Your task to perform on an android device: Is it going to rain today? Image 0: 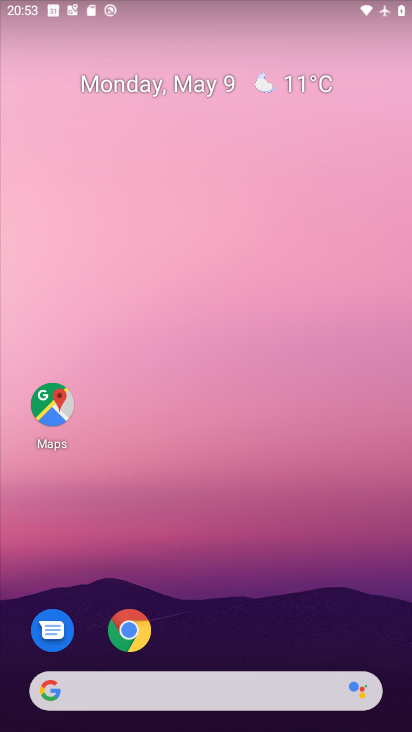
Step 0: drag from (242, 562) to (220, 47)
Your task to perform on an android device: Is it going to rain today? Image 1: 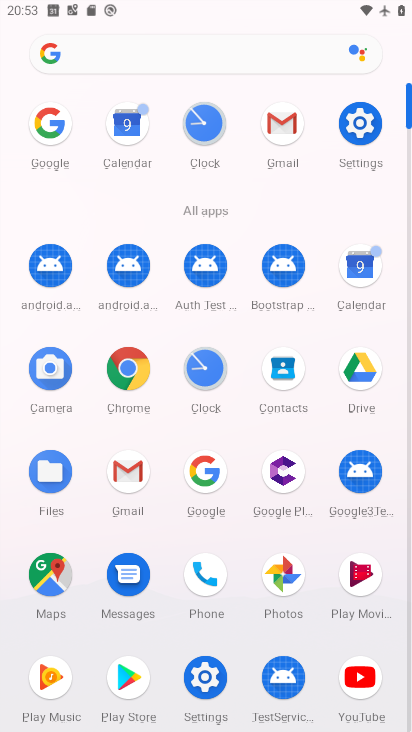
Step 1: click (53, 136)
Your task to perform on an android device: Is it going to rain today? Image 2: 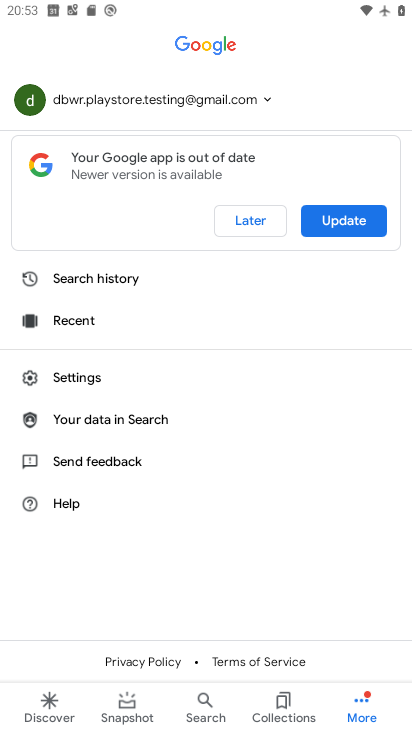
Step 2: press back button
Your task to perform on an android device: Is it going to rain today? Image 3: 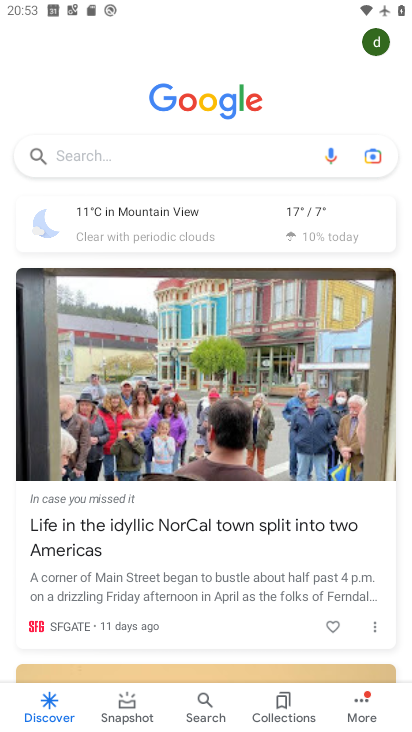
Step 3: click (144, 158)
Your task to perform on an android device: Is it going to rain today? Image 4: 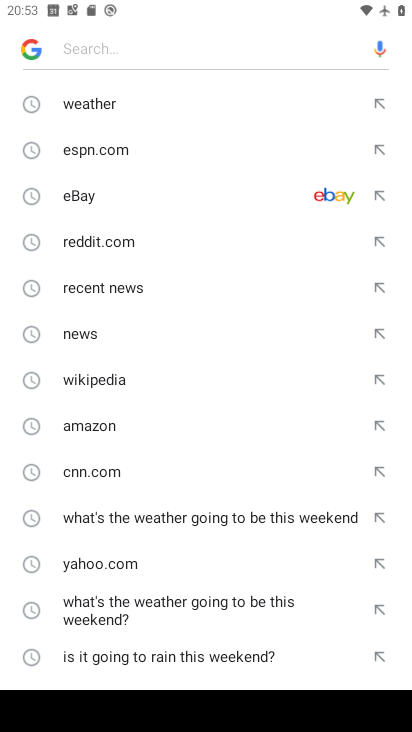
Step 4: type "is it going to rain today"
Your task to perform on an android device: Is it going to rain today? Image 5: 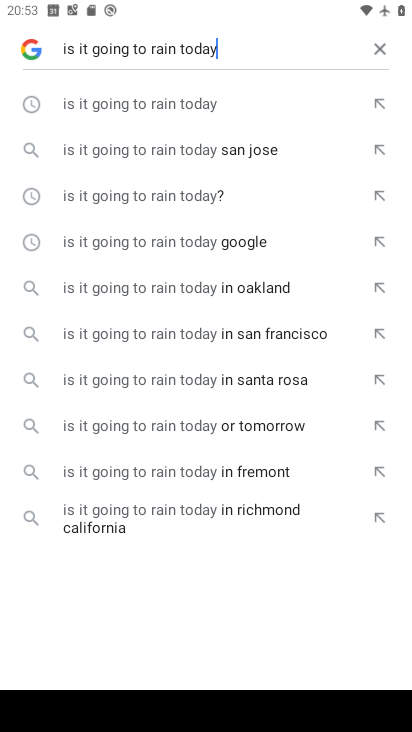
Step 5: click (205, 104)
Your task to perform on an android device: Is it going to rain today? Image 6: 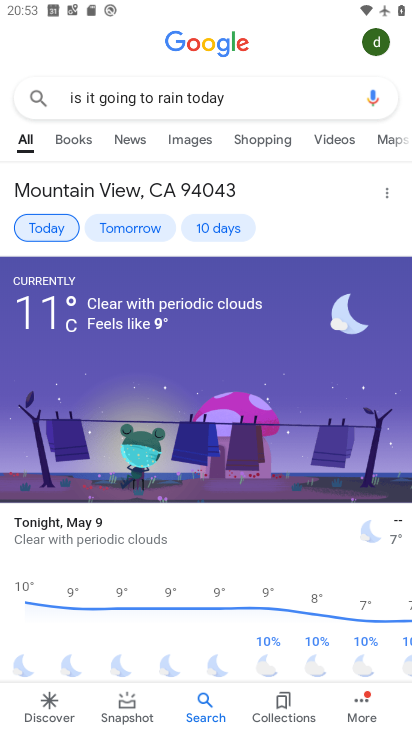
Step 6: task complete